Your task to perform on an android device: delete a single message in the gmail app Image 0: 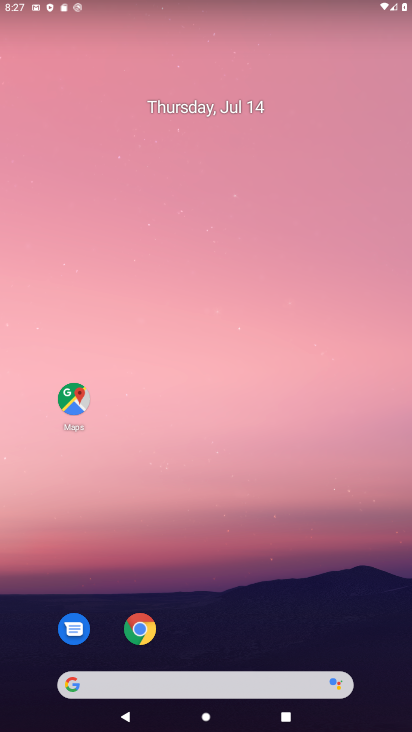
Step 0: drag from (274, 608) to (201, 54)
Your task to perform on an android device: delete a single message in the gmail app Image 1: 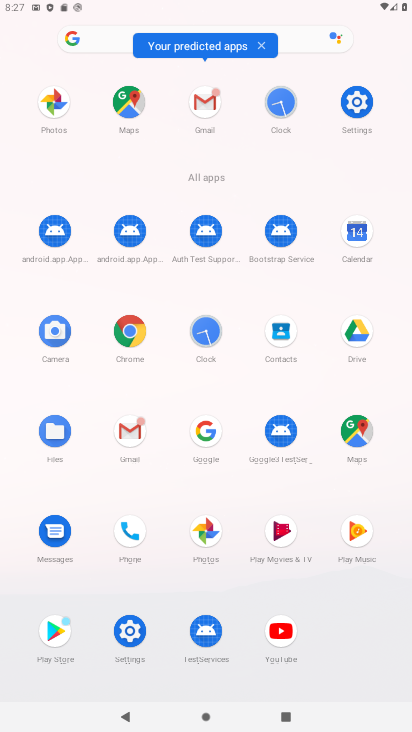
Step 1: click (210, 95)
Your task to perform on an android device: delete a single message in the gmail app Image 2: 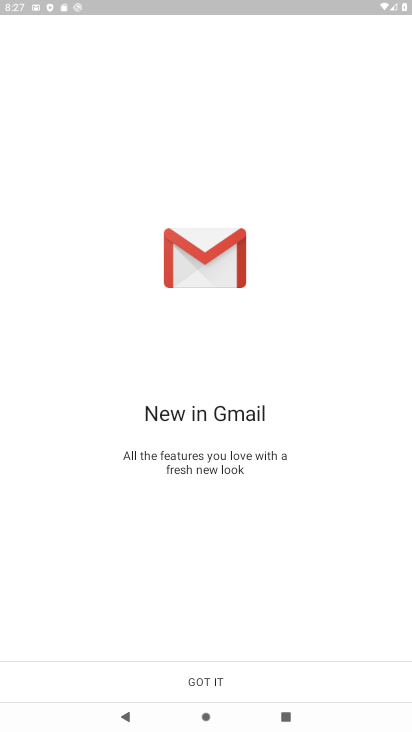
Step 2: click (215, 682)
Your task to perform on an android device: delete a single message in the gmail app Image 3: 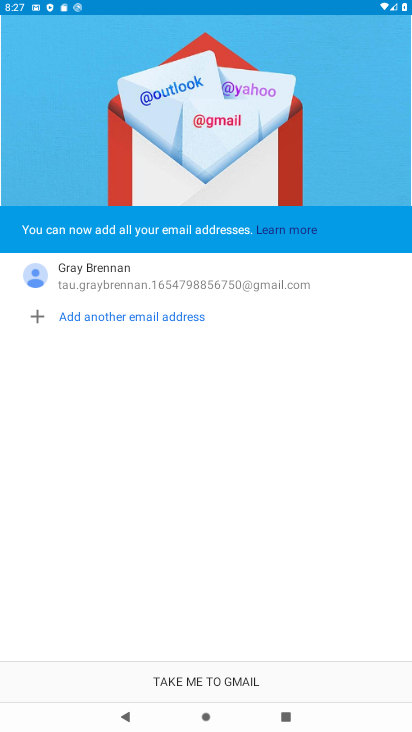
Step 3: click (215, 682)
Your task to perform on an android device: delete a single message in the gmail app Image 4: 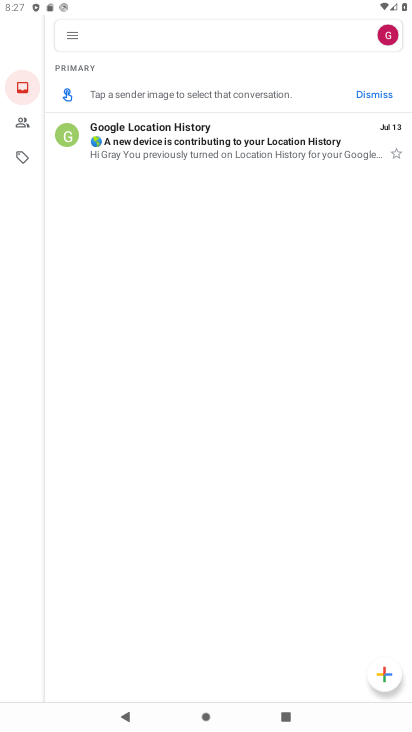
Step 4: click (189, 149)
Your task to perform on an android device: delete a single message in the gmail app Image 5: 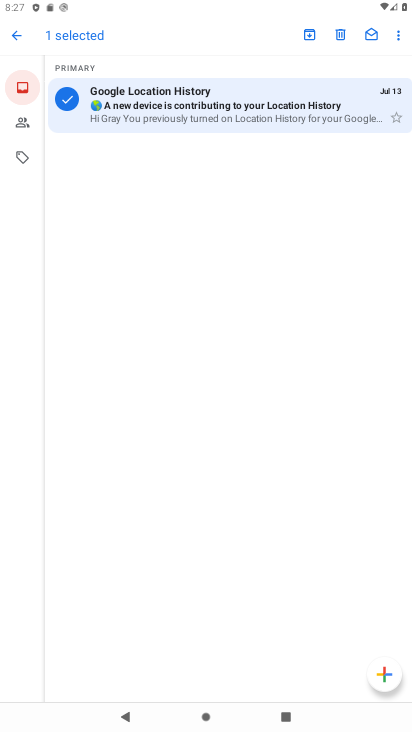
Step 5: click (339, 37)
Your task to perform on an android device: delete a single message in the gmail app Image 6: 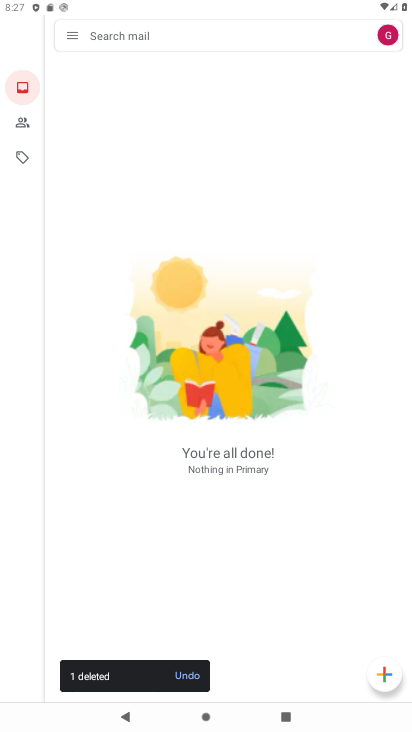
Step 6: task complete